Your task to perform on an android device: turn on location history Image 0: 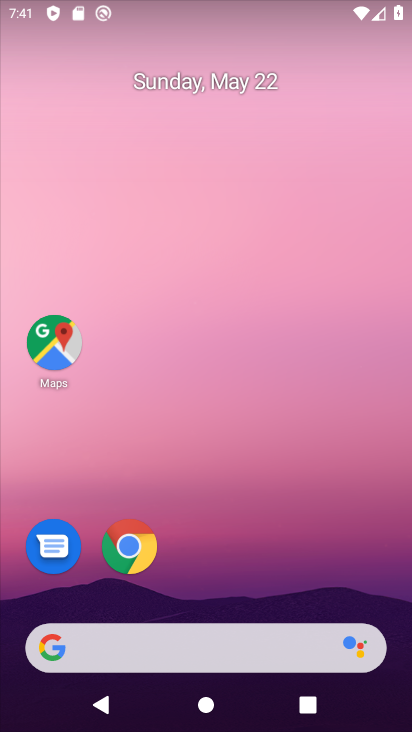
Step 0: press home button
Your task to perform on an android device: turn on location history Image 1: 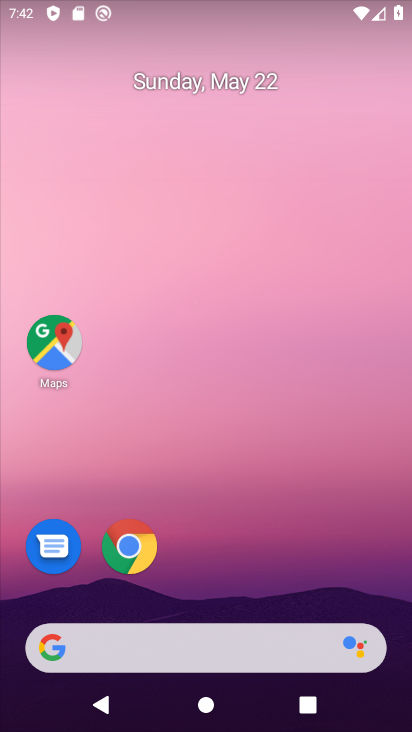
Step 1: click (56, 358)
Your task to perform on an android device: turn on location history Image 2: 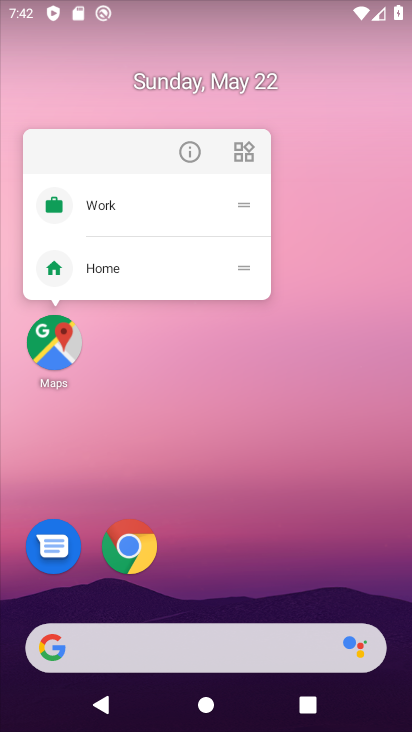
Step 2: click (65, 341)
Your task to perform on an android device: turn on location history Image 3: 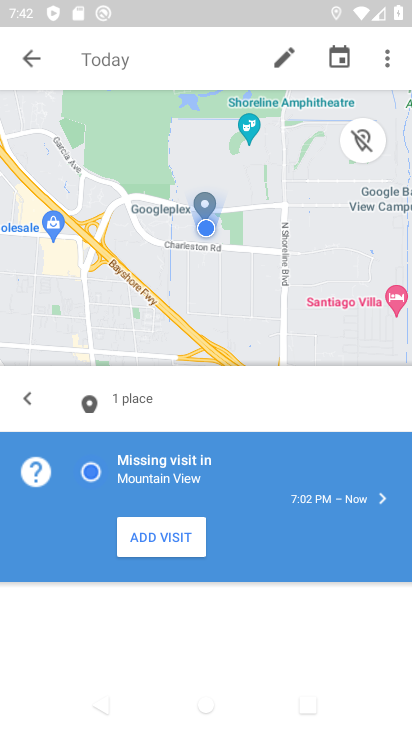
Step 3: click (385, 51)
Your task to perform on an android device: turn on location history Image 4: 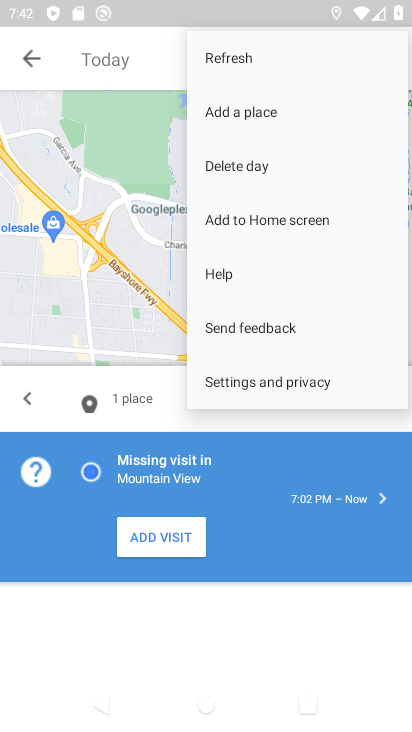
Step 4: click (248, 381)
Your task to perform on an android device: turn on location history Image 5: 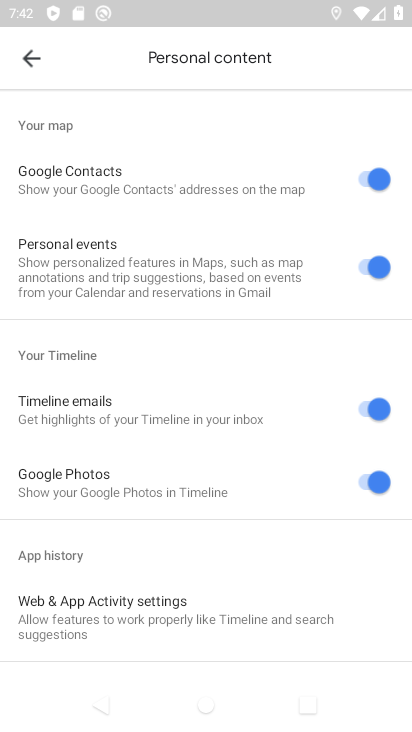
Step 5: drag from (192, 610) to (337, 124)
Your task to perform on an android device: turn on location history Image 6: 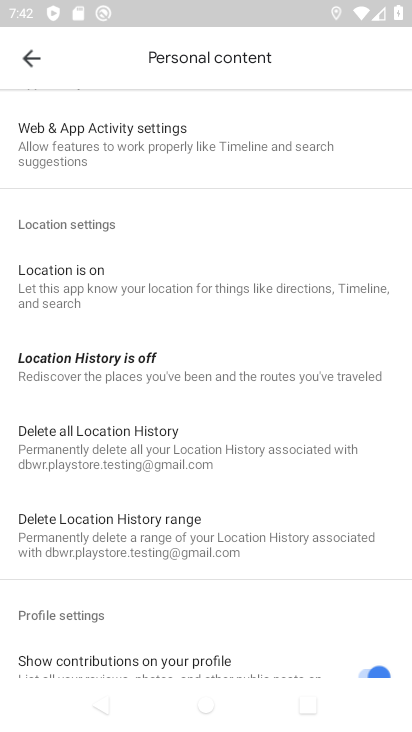
Step 6: click (153, 367)
Your task to perform on an android device: turn on location history Image 7: 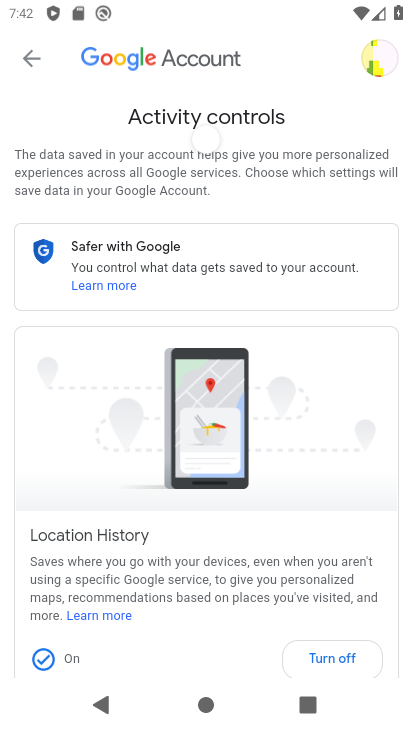
Step 7: task complete